Your task to perform on an android device: What's the latest news in planetary science? Image 0: 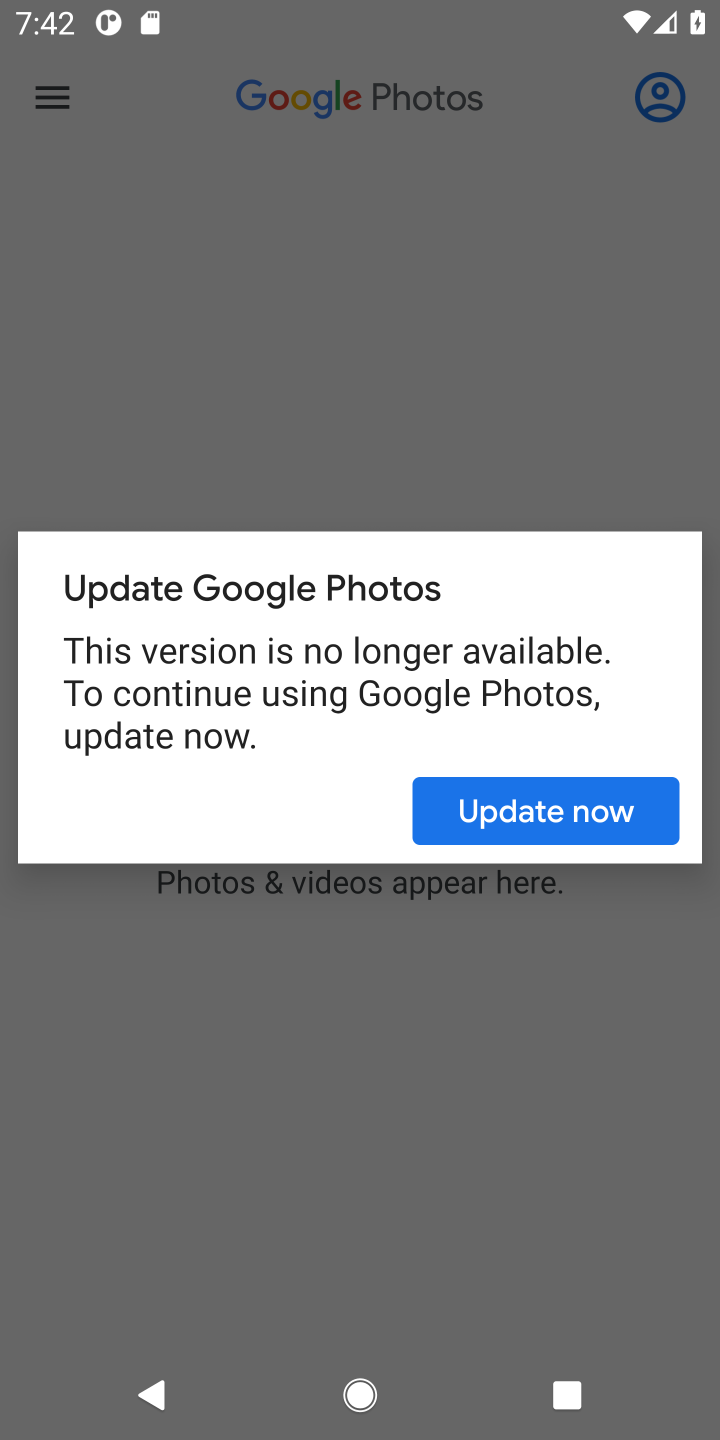
Step 0: press home button
Your task to perform on an android device: What's the latest news in planetary science? Image 1: 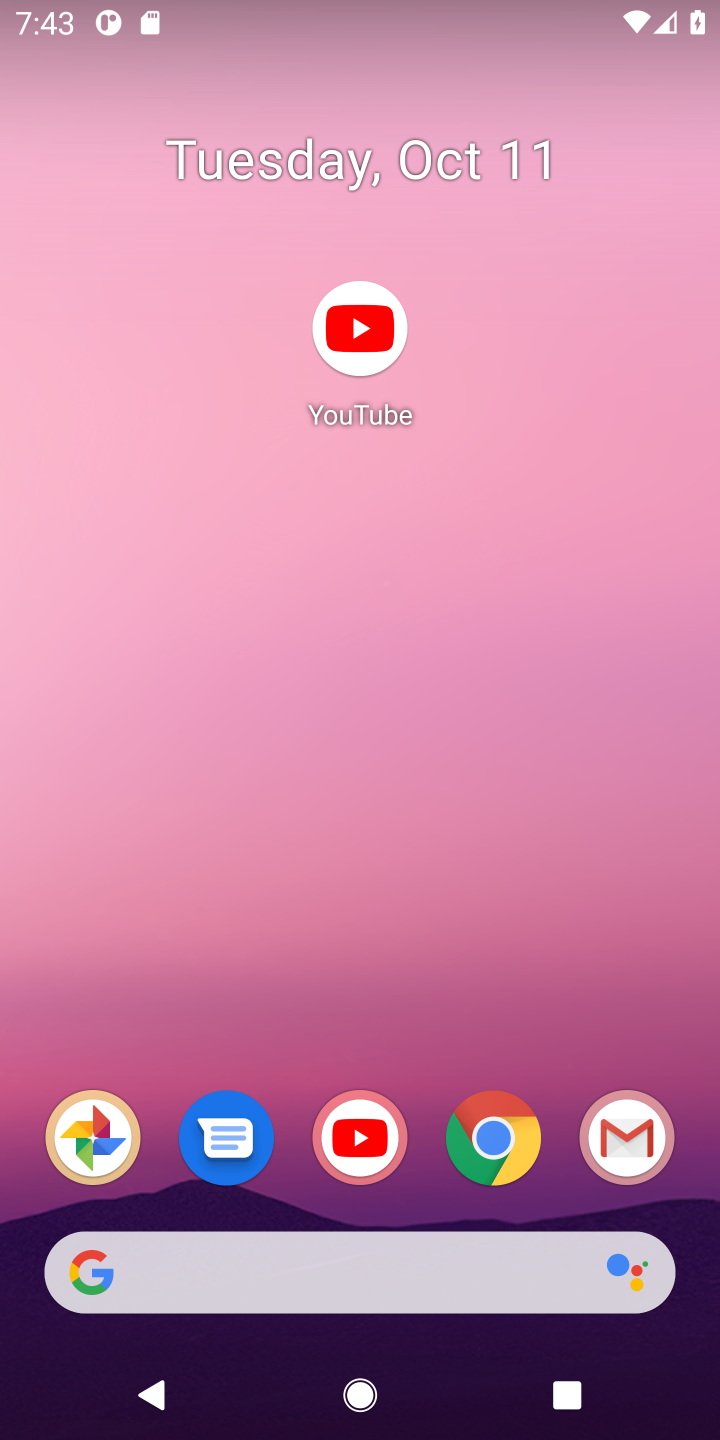
Step 1: click (256, 1272)
Your task to perform on an android device: What's the latest news in planetary science? Image 2: 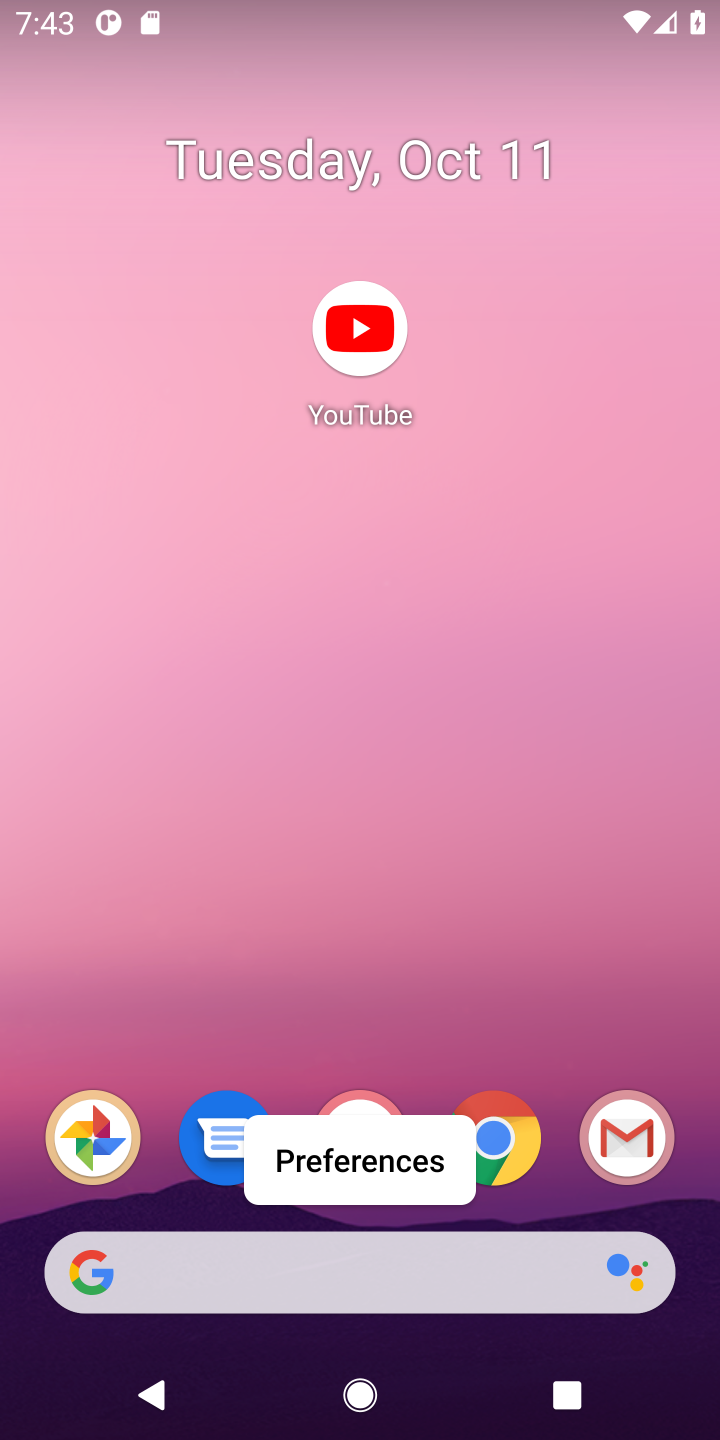
Step 2: click (361, 1297)
Your task to perform on an android device: What's the latest news in planetary science? Image 3: 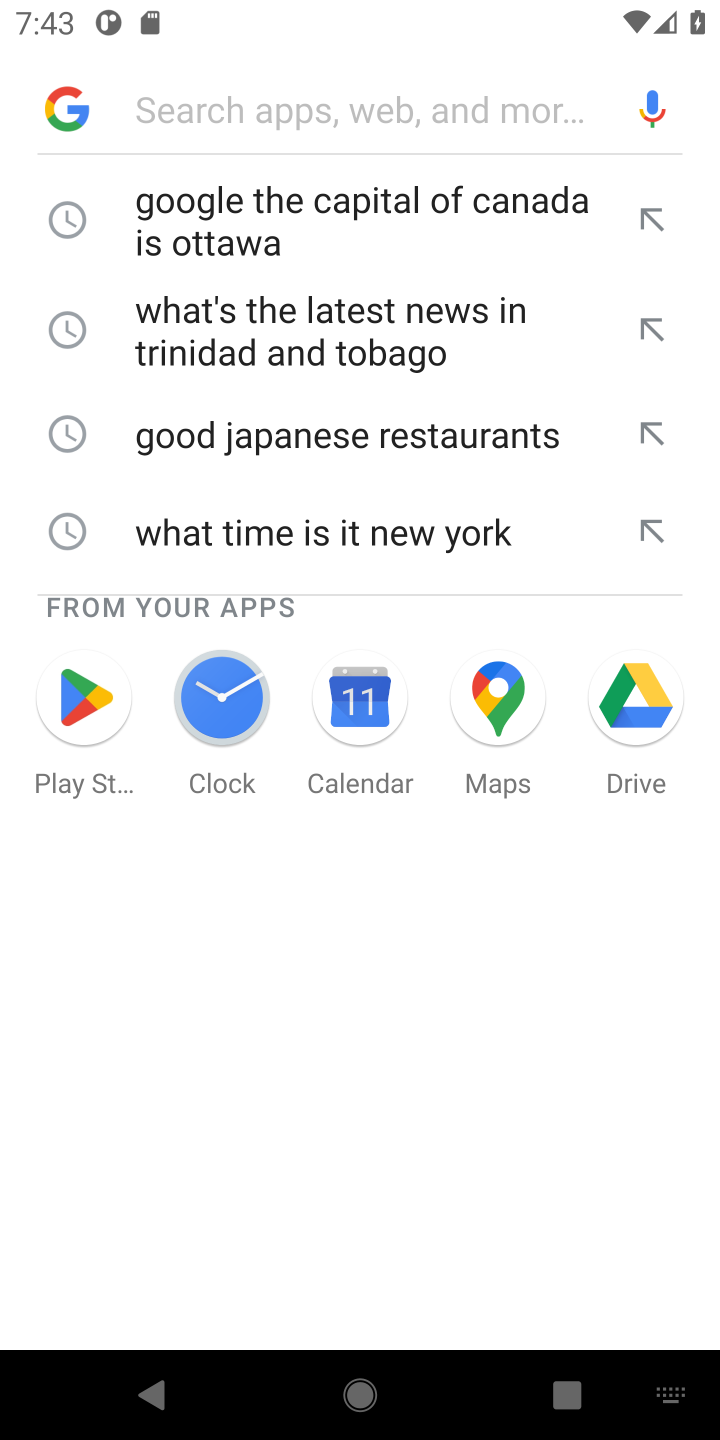
Step 3: type "What's the latest news in planetary science?"
Your task to perform on an android device: What's the latest news in planetary science? Image 4: 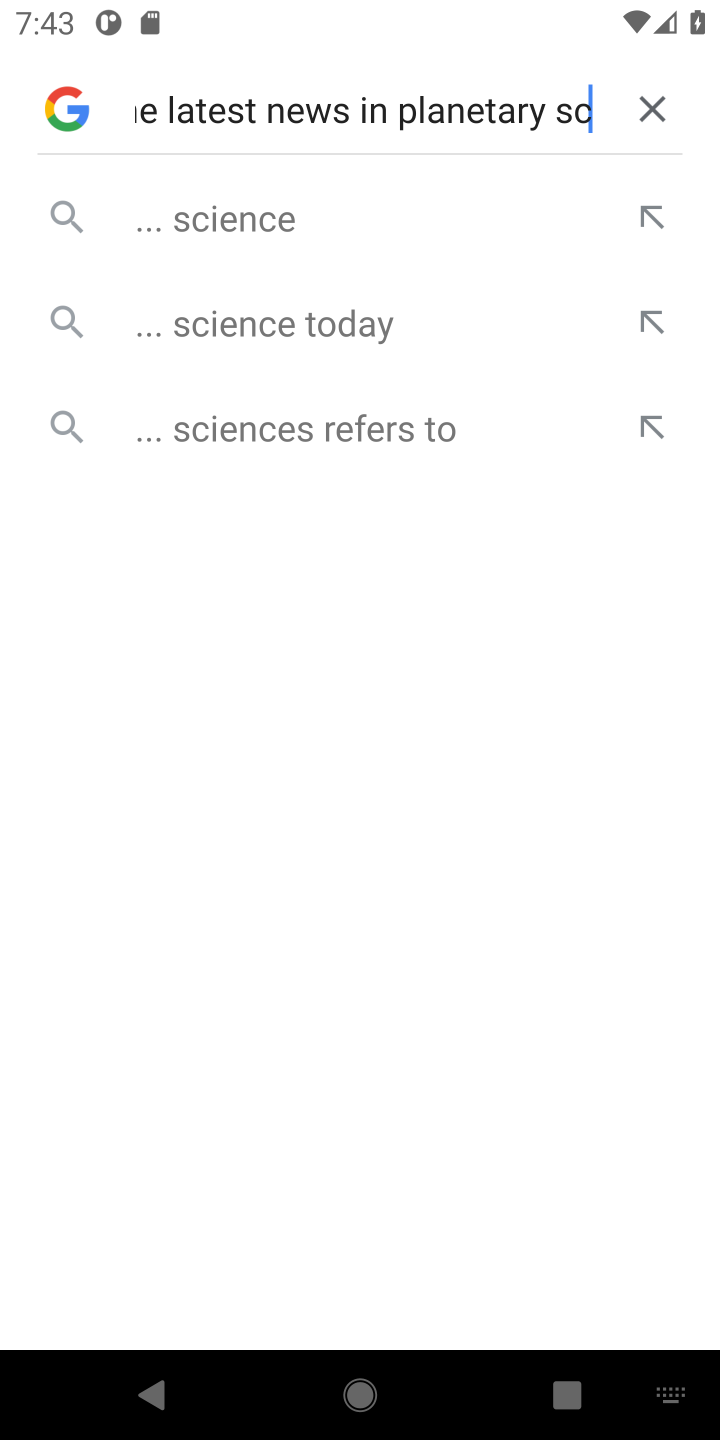
Step 4: click (251, 213)
Your task to perform on an android device: What's the latest news in planetary science? Image 5: 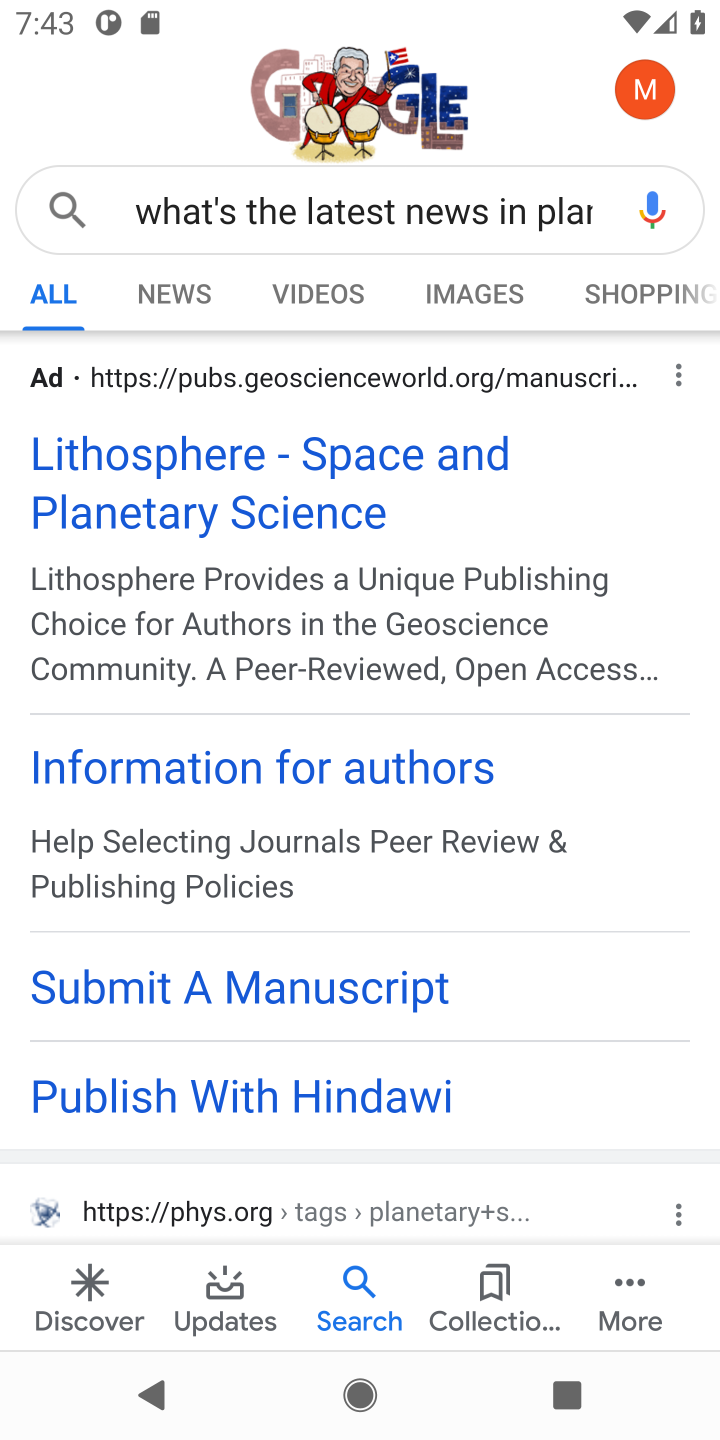
Step 5: task complete